Your task to perform on an android device: check storage Image 0: 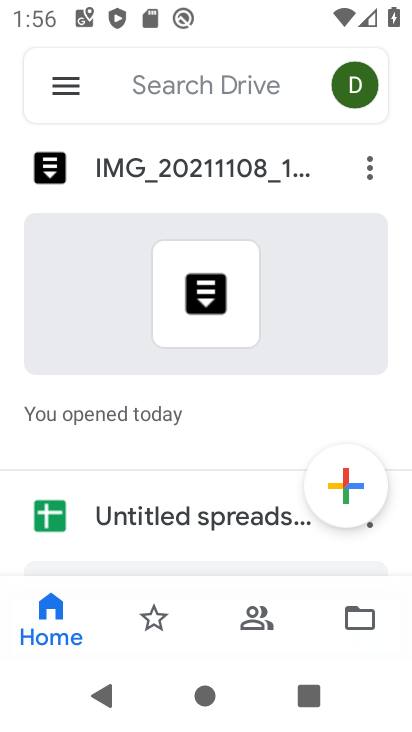
Step 0: press home button
Your task to perform on an android device: check storage Image 1: 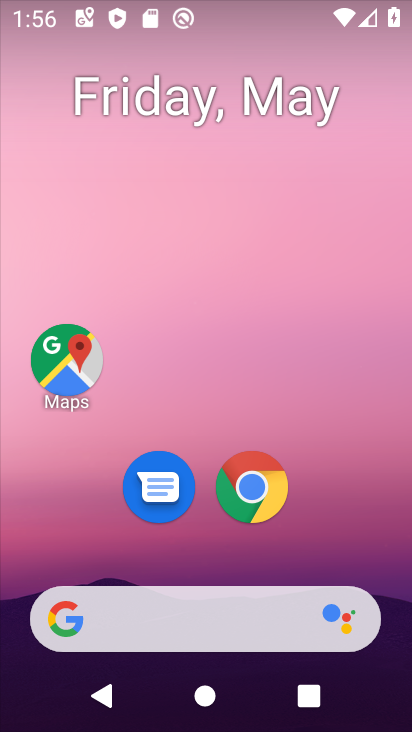
Step 1: drag from (348, 559) to (308, 2)
Your task to perform on an android device: check storage Image 2: 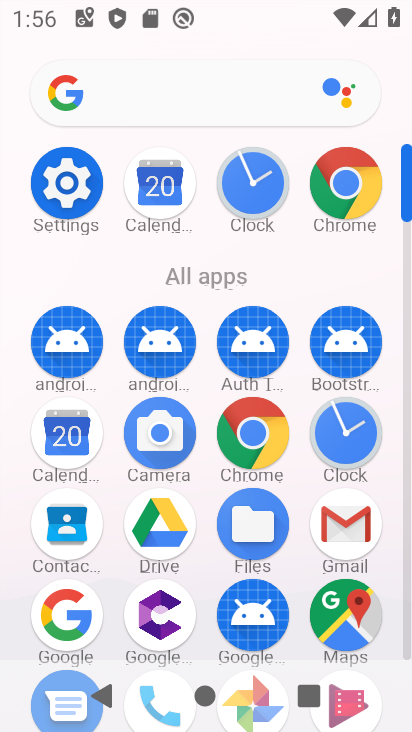
Step 2: click (62, 202)
Your task to perform on an android device: check storage Image 3: 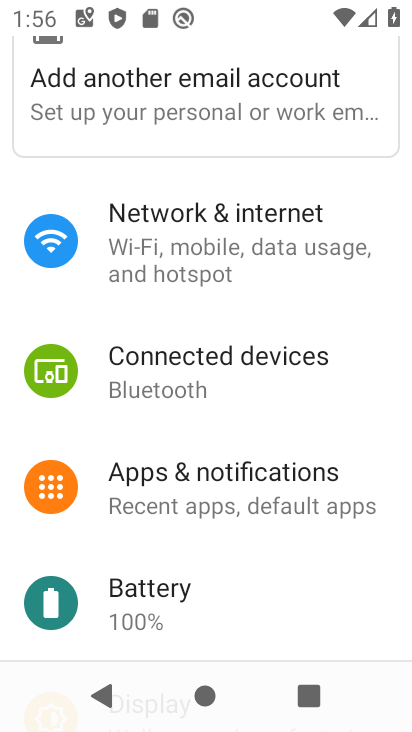
Step 3: drag from (287, 542) to (264, 212)
Your task to perform on an android device: check storage Image 4: 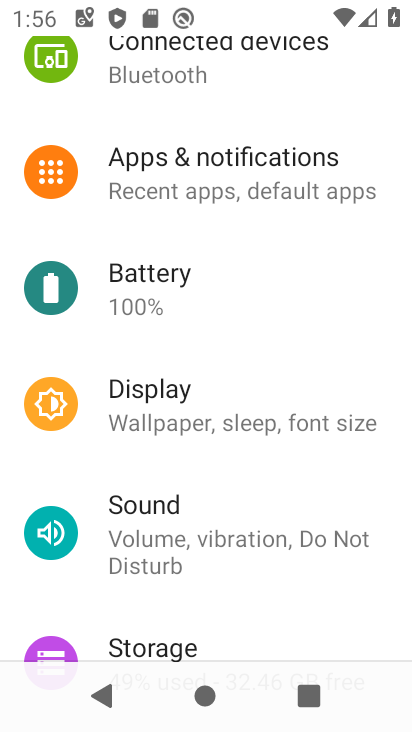
Step 4: drag from (254, 403) to (239, 87)
Your task to perform on an android device: check storage Image 5: 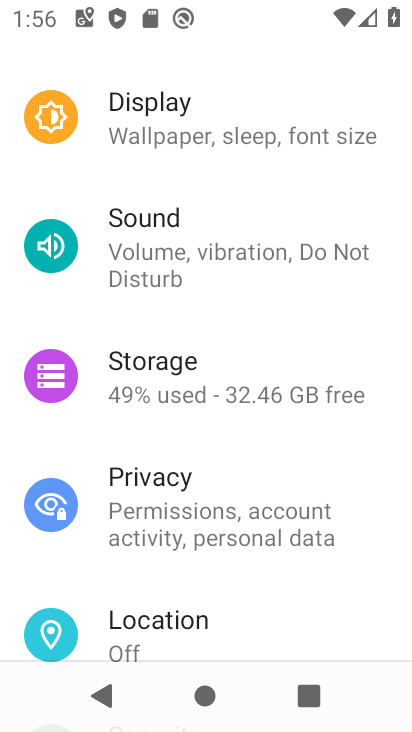
Step 5: click (160, 389)
Your task to perform on an android device: check storage Image 6: 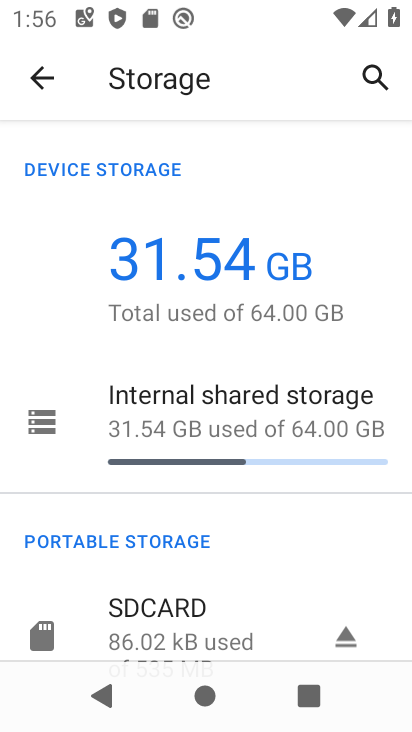
Step 6: drag from (234, 545) to (221, 391)
Your task to perform on an android device: check storage Image 7: 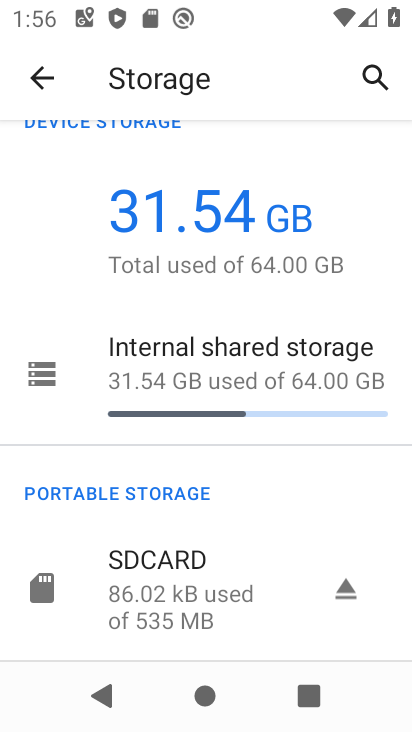
Step 7: click (222, 360)
Your task to perform on an android device: check storage Image 8: 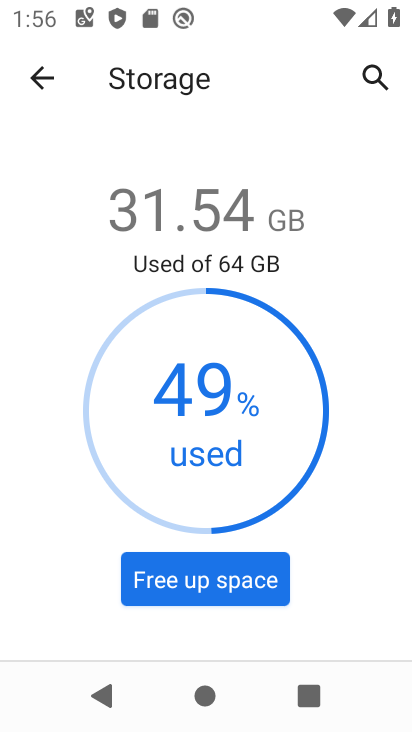
Step 8: task complete